Your task to perform on an android device: What is the news today? Image 0: 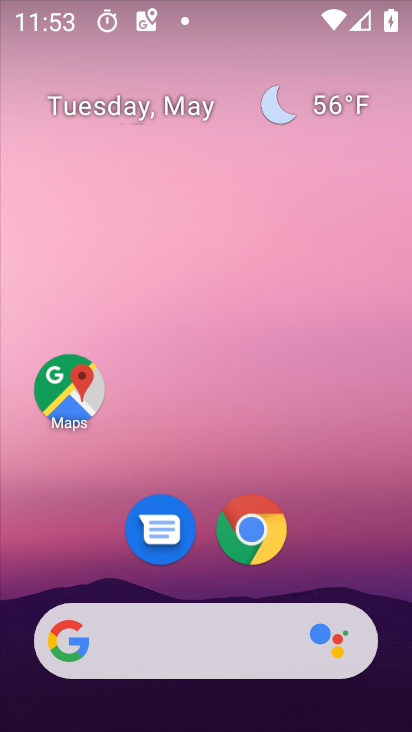
Step 0: click (208, 647)
Your task to perform on an android device: What is the news today? Image 1: 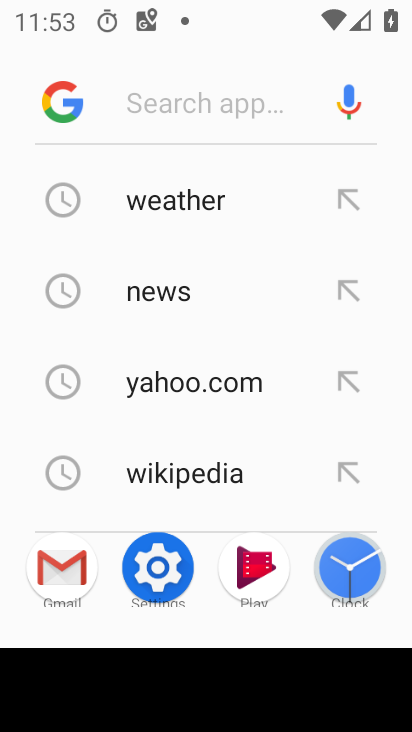
Step 1: click (153, 277)
Your task to perform on an android device: What is the news today? Image 2: 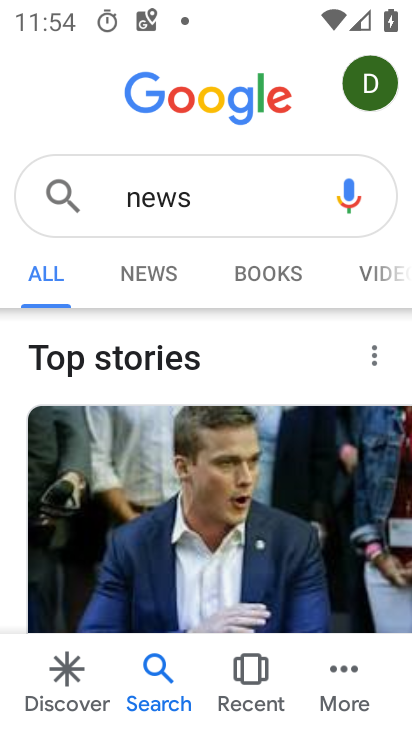
Step 2: task complete